Your task to perform on an android device: see sites visited before in the chrome app Image 0: 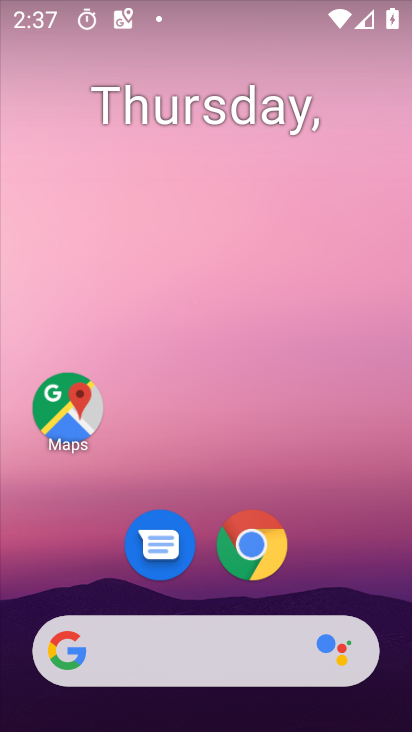
Step 0: click (255, 546)
Your task to perform on an android device: see sites visited before in the chrome app Image 1: 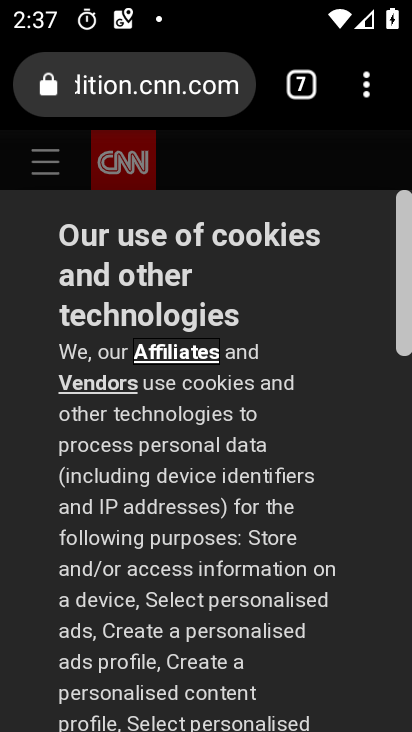
Step 1: click (367, 99)
Your task to perform on an android device: see sites visited before in the chrome app Image 2: 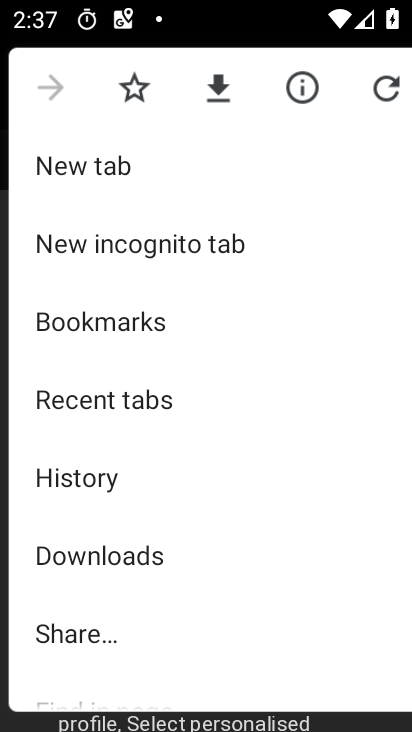
Step 2: drag from (132, 630) to (113, 365)
Your task to perform on an android device: see sites visited before in the chrome app Image 3: 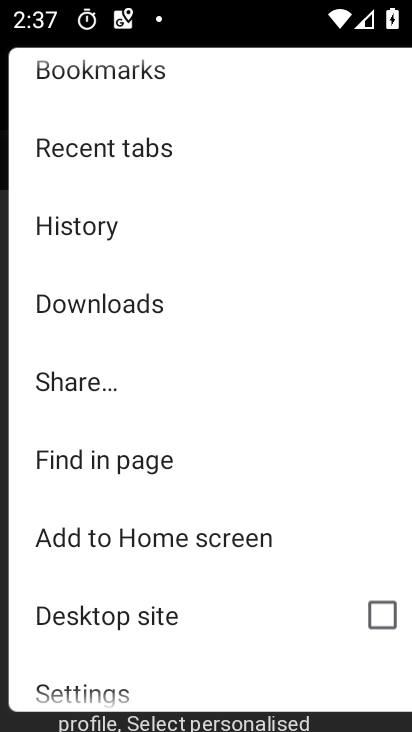
Step 3: click (85, 225)
Your task to perform on an android device: see sites visited before in the chrome app Image 4: 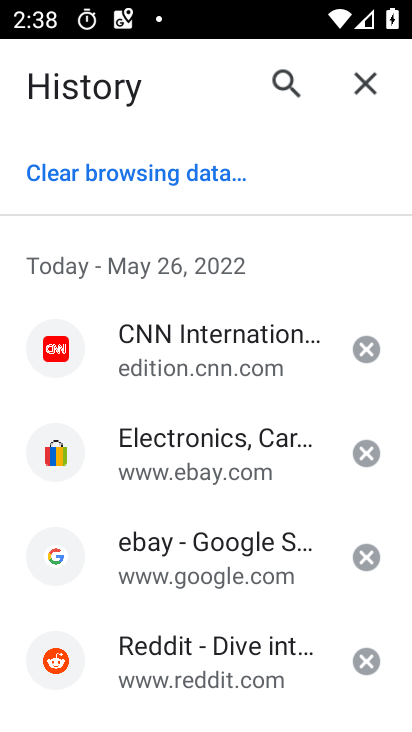
Step 4: task complete